Your task to perform on an android device: Open calendar and show me the fourth week of next month Image 0: 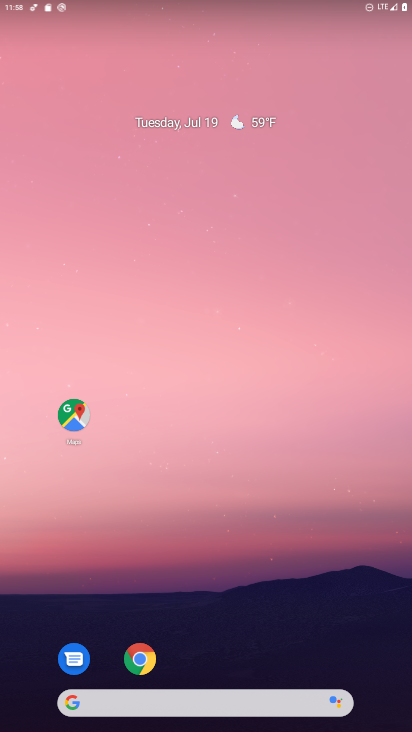
Step 0: drag from (259, 622) to (215, 57)
Your task to perform on an android device: Open calendar and show me the fourth week of next month Image 1: 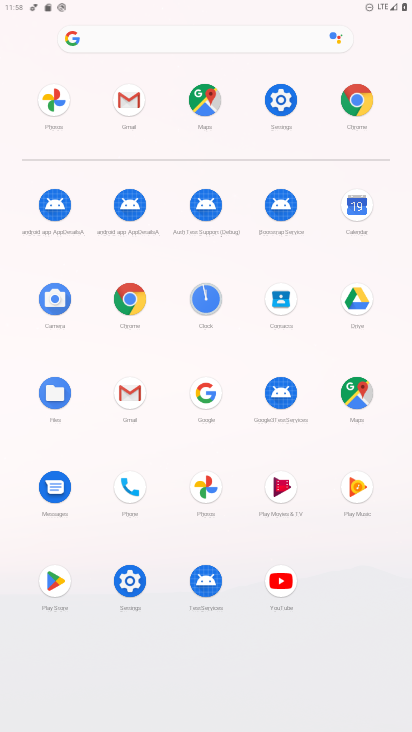
Step 1: click (348, 206)
Your task to perform on an android device: Open calendar and show me the fourth week of next month Image 2: 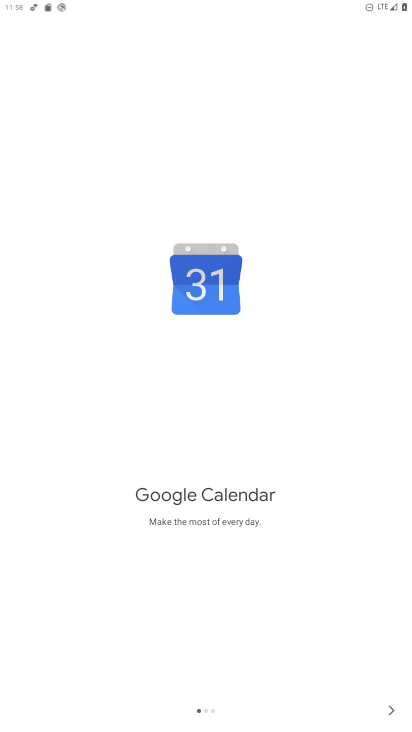
Step 2: click (393, 703)
Your task to perform on an android device: Open calendar and show me the fourth week of next month Image 3: 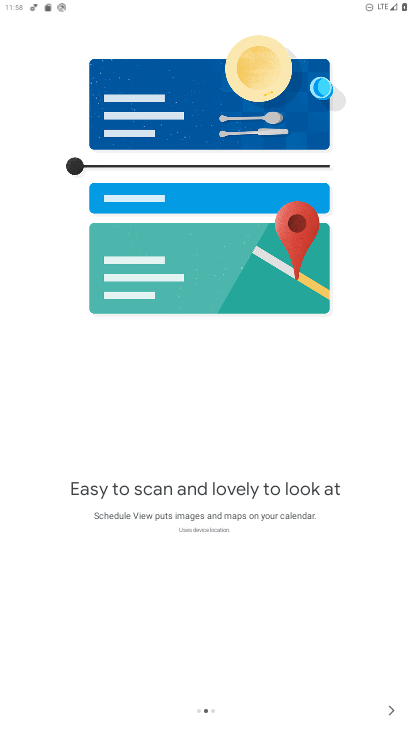
Step 3: click (393, 702)
Your task to perform on an android device: Open calendar and show me the fourth week of next month Image 4: 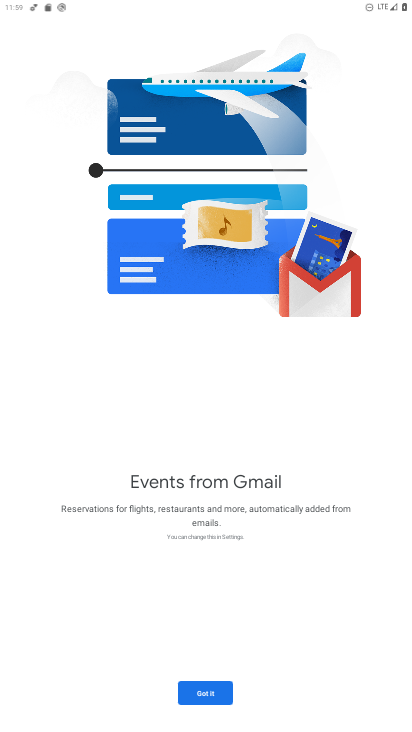
Step 4: click (198, 694)
Your task to perform on an android device: Open calendar and show me the fourth week of next month Image 5: 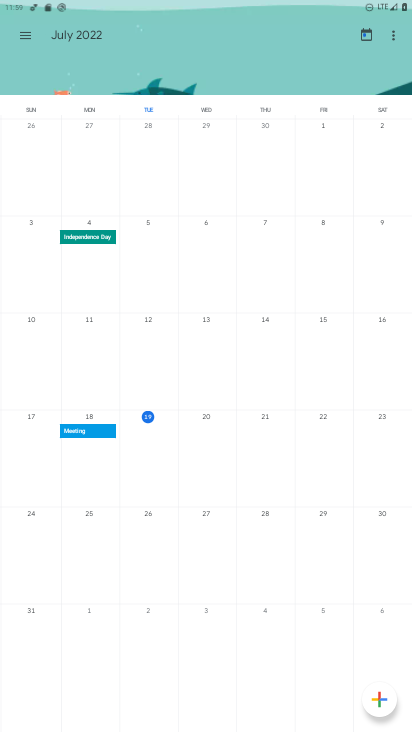
Step 5: click (58, 42)
Your task to perform on an android device: Open calendar and show me the fourth week of next month Image 6: 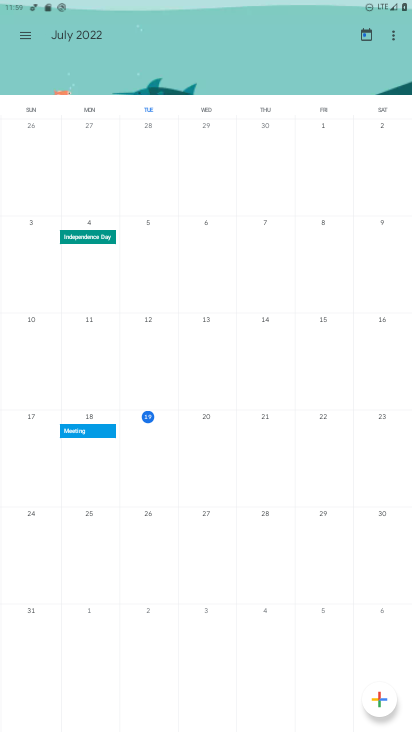
Step 6: click (64, 41)
Your task to perform on an android device: Open calendar and show me the fourth week of next month Image 7: 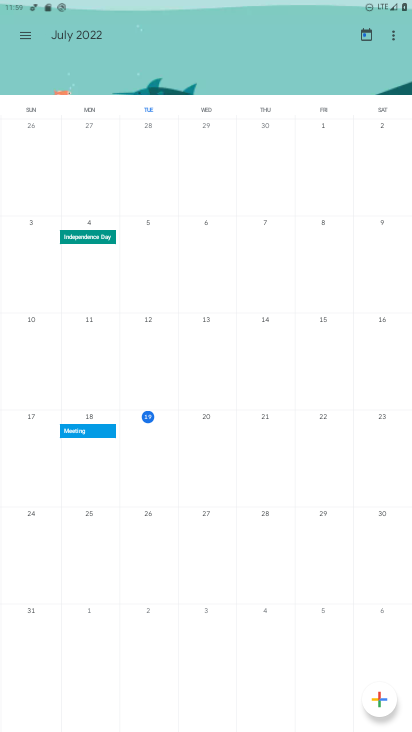
Step 7: click (64, 35)
Your task to perform on an android device: Open calendar and show me the fourth week of next month Image 8: 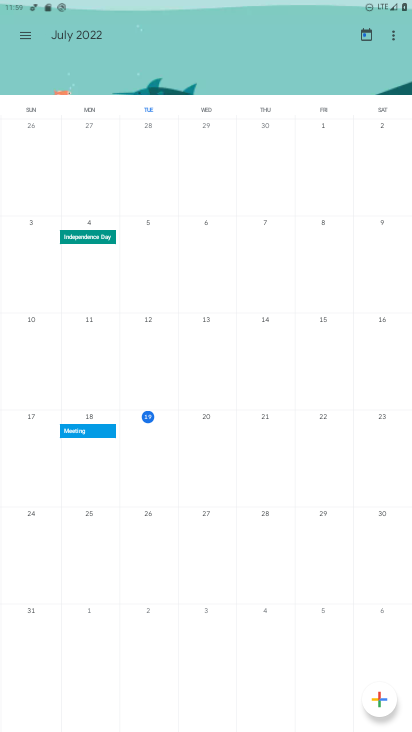
Step 8: click (66, 37)
Your task to perform on an android device: Open calendar and show me the fourth week of next month Image 9: 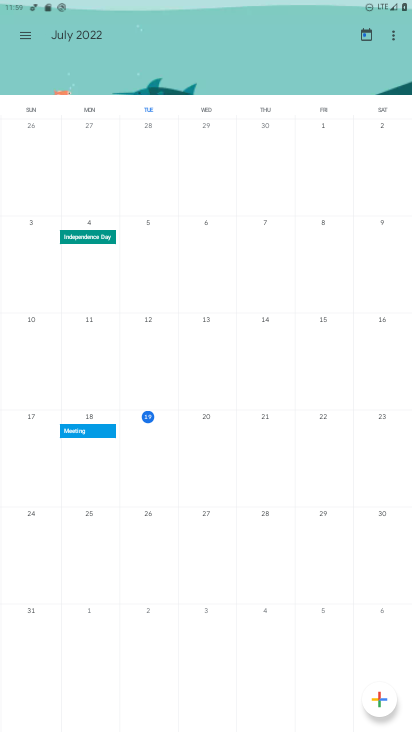
Step 9: drag from (371, 288) to (41, 281)
Your task to perform on an android device: Open calendar and show me the fourth week of next month Image 10: 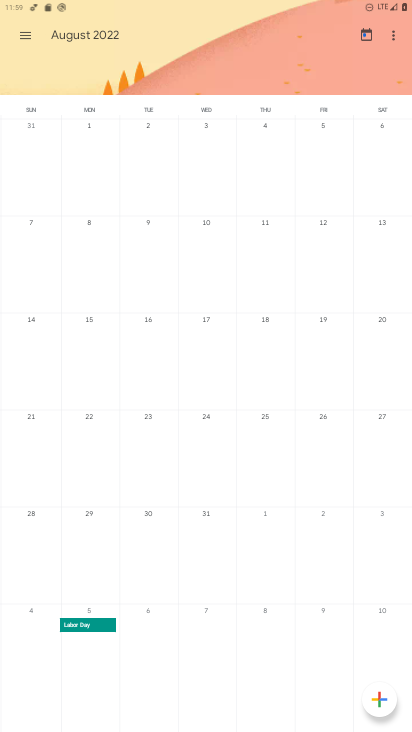
Step 10: drag from (6, 312) to (6, 391)
Your task to perform on an android device: Open calendar and show me the fourth week of next month Image 11: 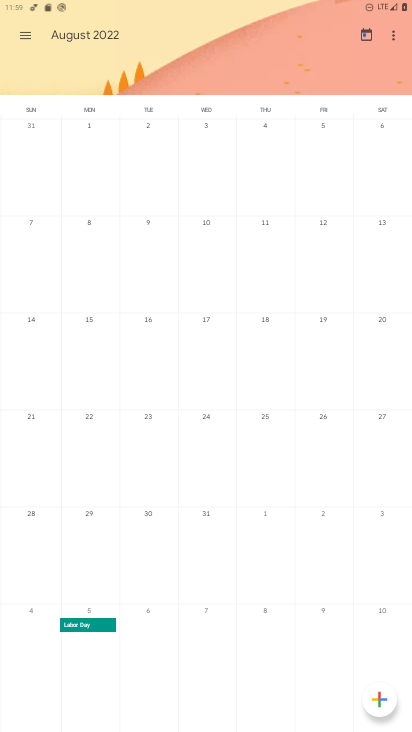
Step 11: click (256, 421)
Your task to perform on an android device: Open calendar and show me the fourth week of next month Image 12: 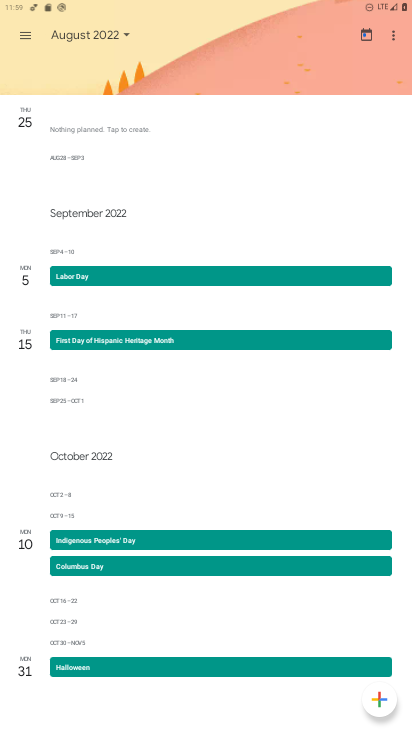
Step 12: click (32, 32)
Your task to perform on an android device: Open calendar and show me the fourth week of next month Image 13: 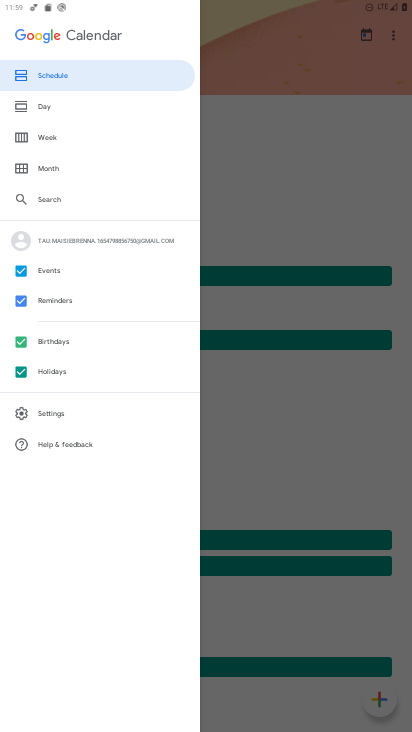
Step 13: click (55, 149)
Your task to perform on an android device: Open calendar and show me the fourth week of next month Image 14: 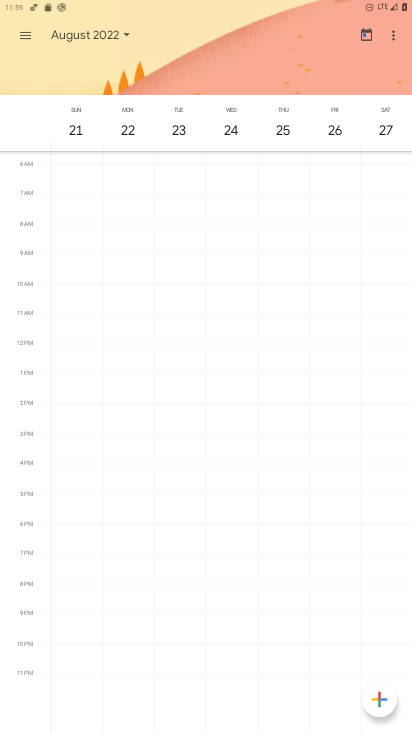
Step 14: task complete